Your task to perform on an android device: turn on priority inbox in the gmail app Image 0: 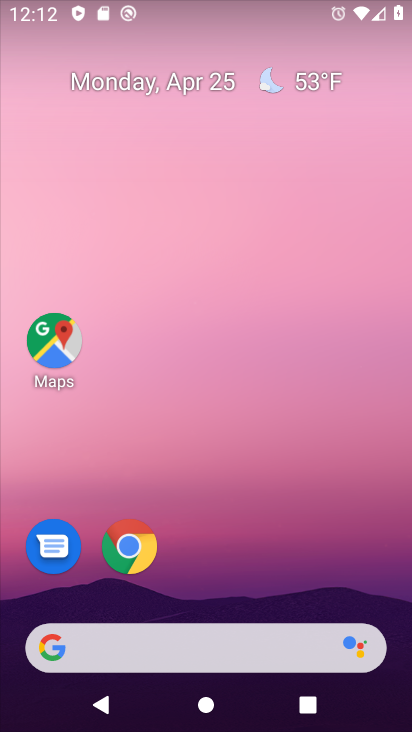
Step 0: drag from (179, 564) to (182, 149)
Your task to perform on an android device: turn on priority inbox in the gmail app Image 1: 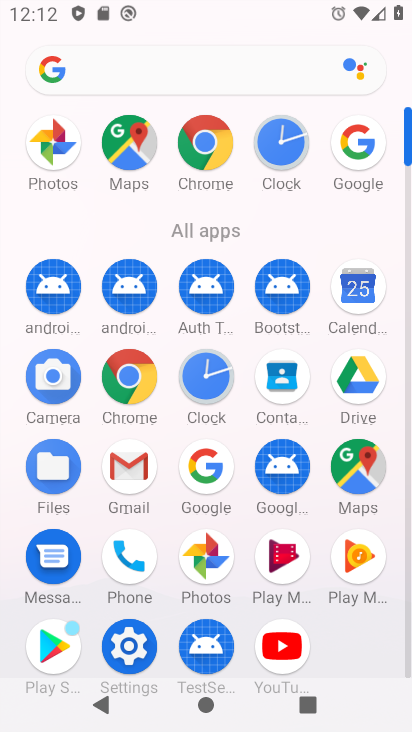
Step 1: click (129, 480)
Your task to perform on an android device: turn on priority inbox in the gmail app Image 2: 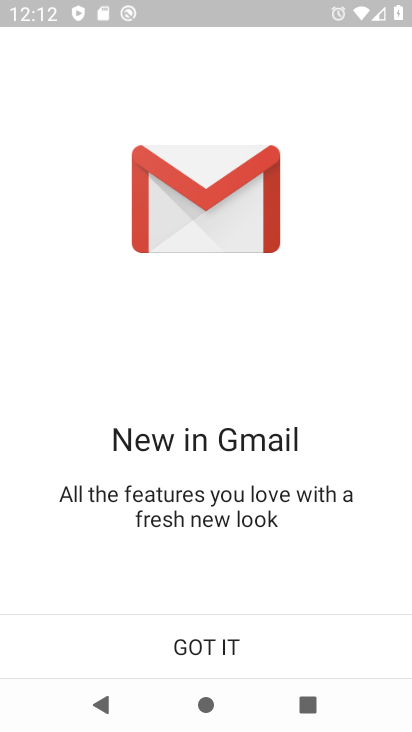
Step 2: click (179, 651)
Your task to perform on an android device: turn on priority inbox in the gmail app Image 3: 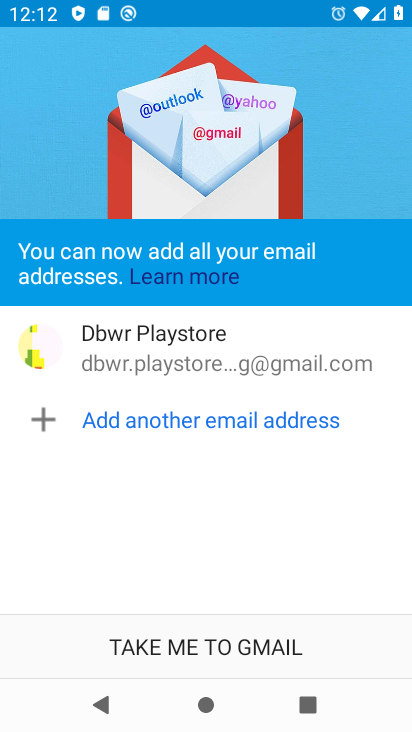
Step 3: click (179, 651)
Your task to perform on an android device: turn on priority inbox in the gmail app Image 4: 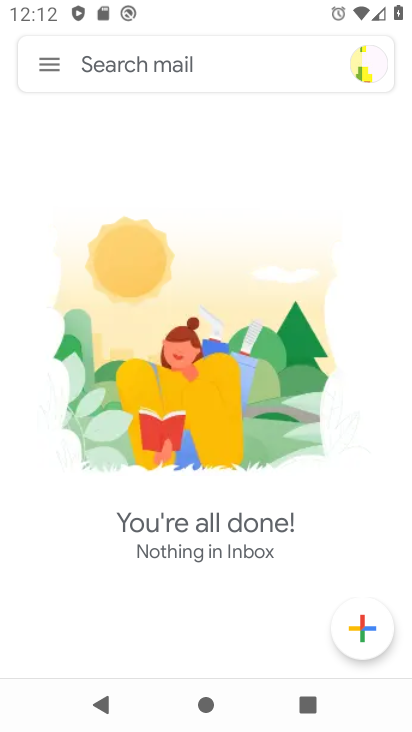
Step 4: click (54, 62)
Your task to perform on an android device: turn on priority inbox in the gmail app Image 5: 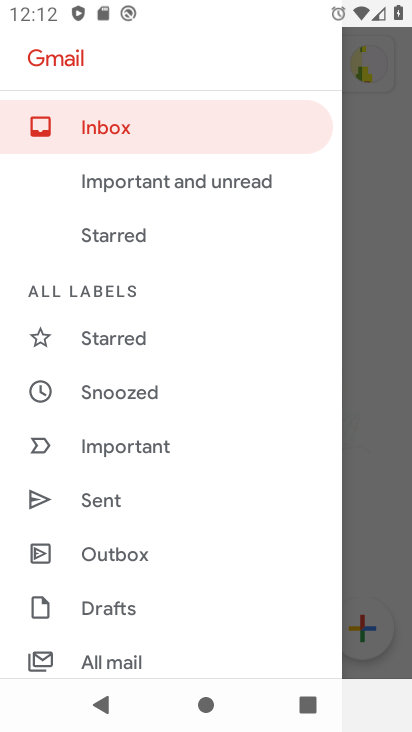
Step 5: drag from (170, 599) to (187, 281)
Your task to perform on an android device: turn on priority inbox in the gmail app Image 6: 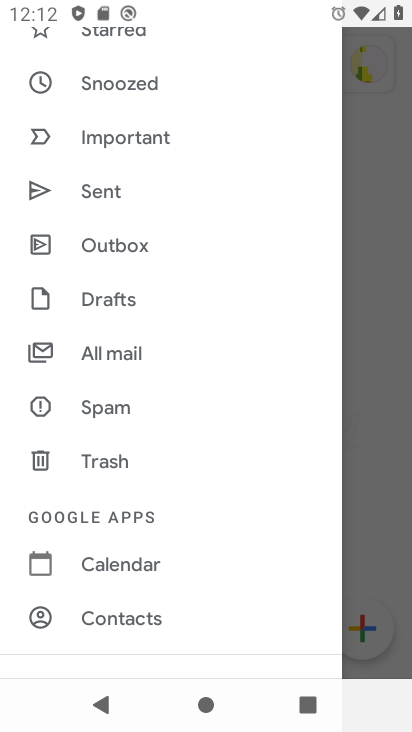
Step 6: drag from (194, 460) to (205, 327)
Your task to perform on an android device: turn on priority inbox in the gmail app Image 7: 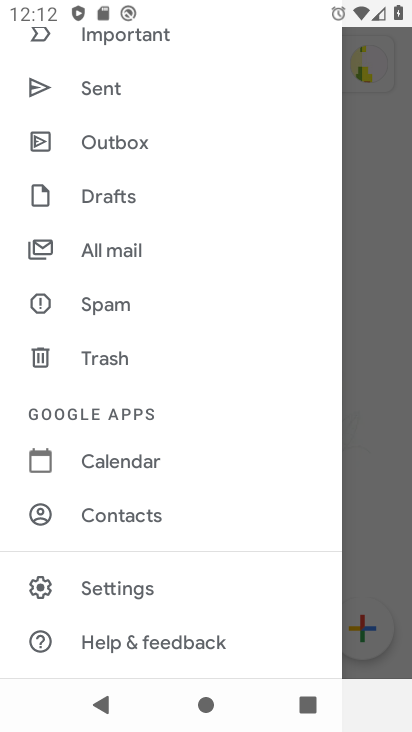
Step 7: click (131, 577)
Your task to perform on an android device: turn on priority inbox in the gmail app Image 8: 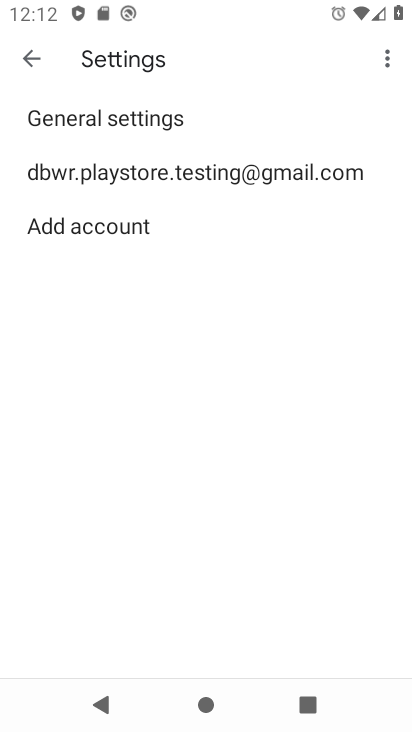
Step 8: click (172, 175)
Your task to perform on an android device: turn on priority inbox in the gmail app Image 9: 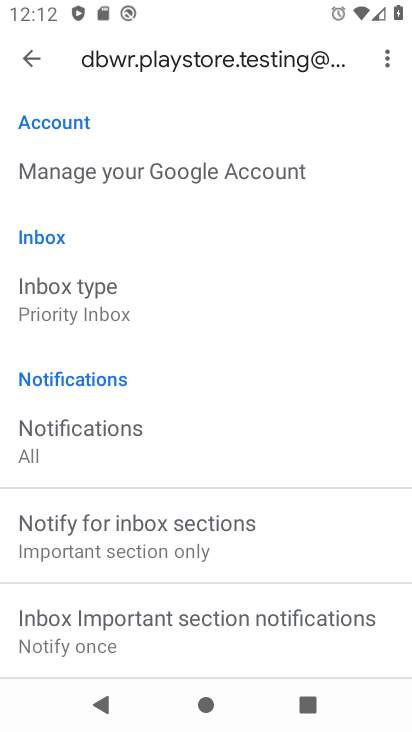
Step 9: click (103, 310)
Your task to perform on an android device: turn on priority inbox in the gmail app Image 10: 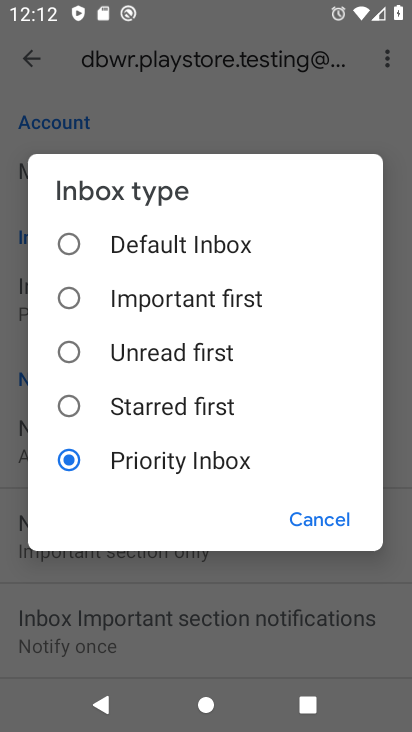
Step 10: task complete